Your task to perform on an android device: turn on the 24-hour format for clock Image 0: 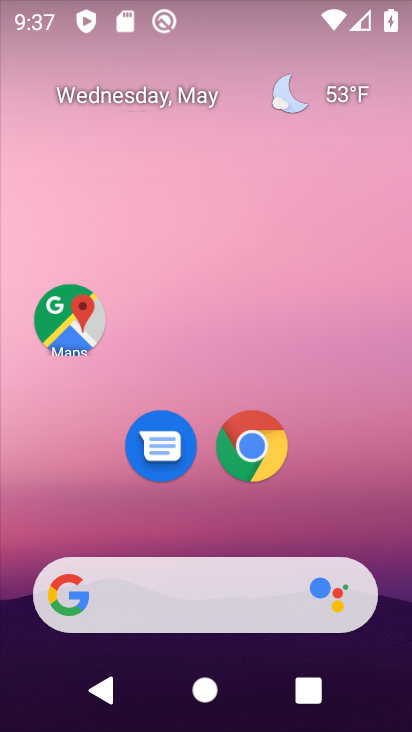
Step 0: drag from (328, 517) to (360, 87)
Your task to perform on an android device: turn on the 24-hour format for clock Image 1: 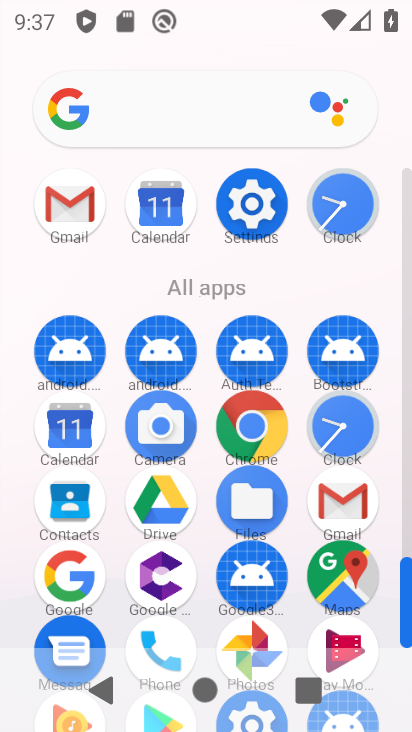
Step 1: click (342, 224)
Your task to perform on an android device: turn on the 24-hour format for clock Image 2: 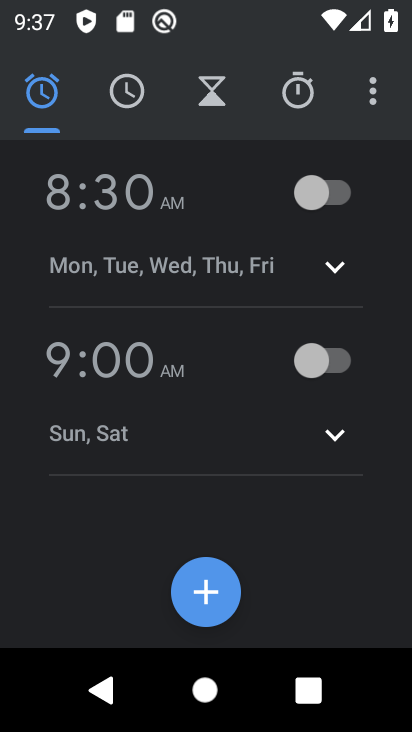
Step 2: click (379, 99)
Your task to perform on an android device: turn on the 24-hour format for clock Image 3: 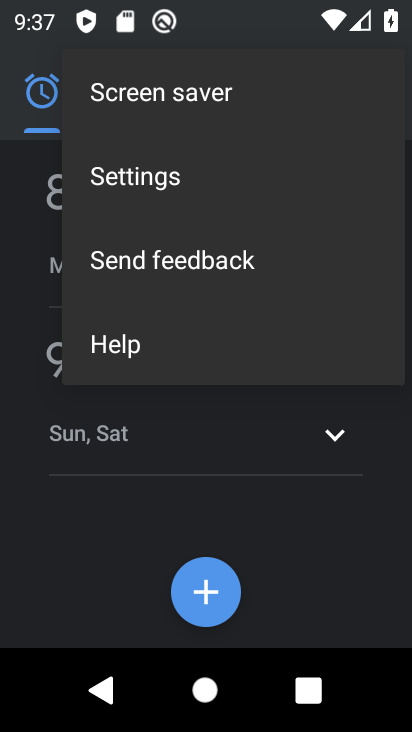
Step 3: click (164, 187)
Your task to perform on an android device: turn on the 24-hour format for clock Image 4: 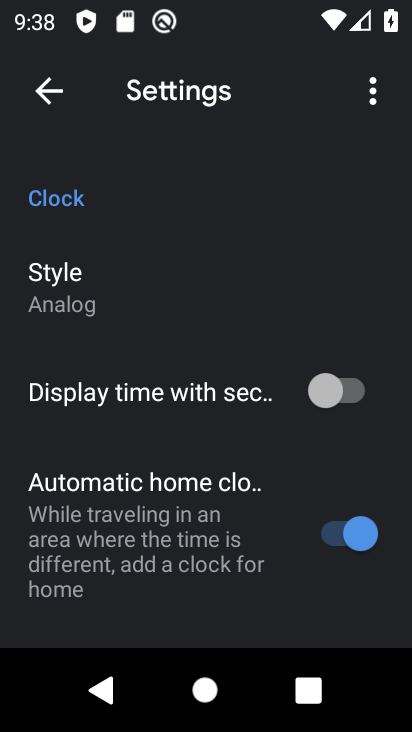
Step 4: drag from (222, 466) to (194, 234)
Your task to perform on an android device: turn on the 24-hour format for clock Image 5: 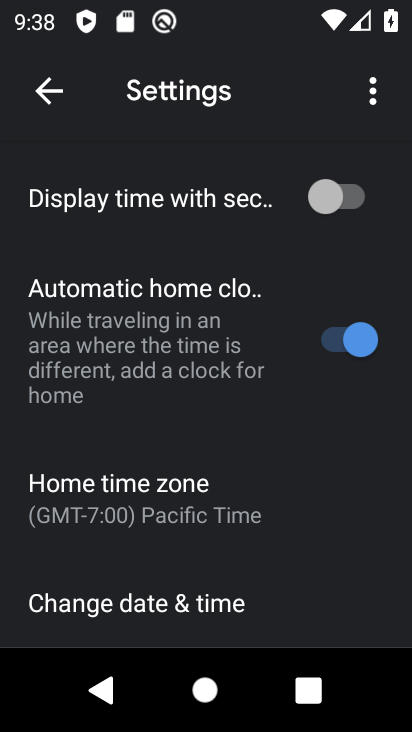
Step 5: click (255, 592)
Your task to perform on an android device: turn on the 24-hour format for clock Image 6: 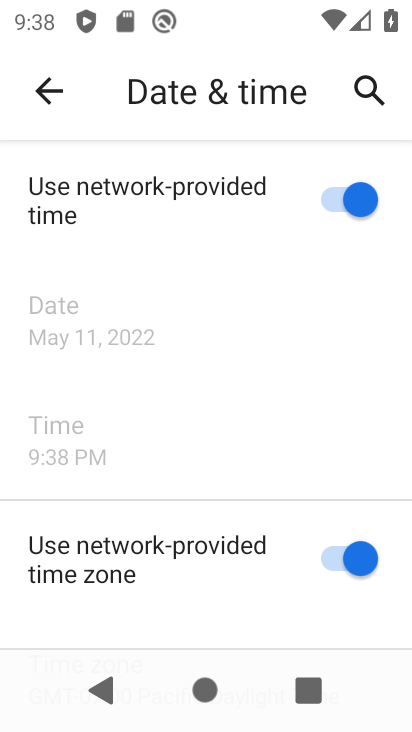
Step 6: drag from (262, 487) to (215, 247)
Your task to perform on an android device: turn on the 24-hour format for clock Image 7: 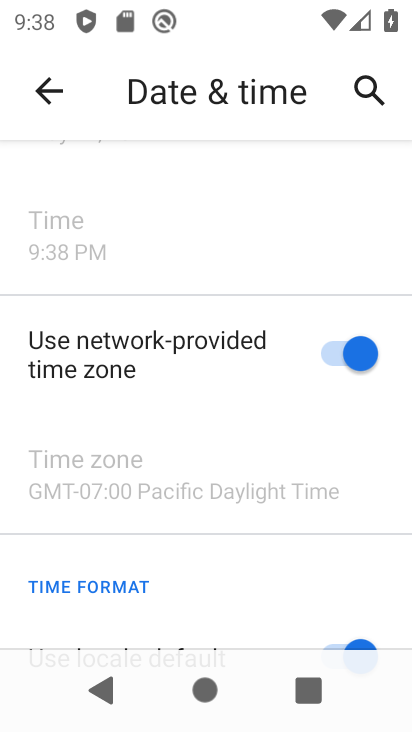
Step 7: drag from (283, 530) to (219, 304)
Your task to perform on an android device: turn on the 24-hour format for clock Image 8: 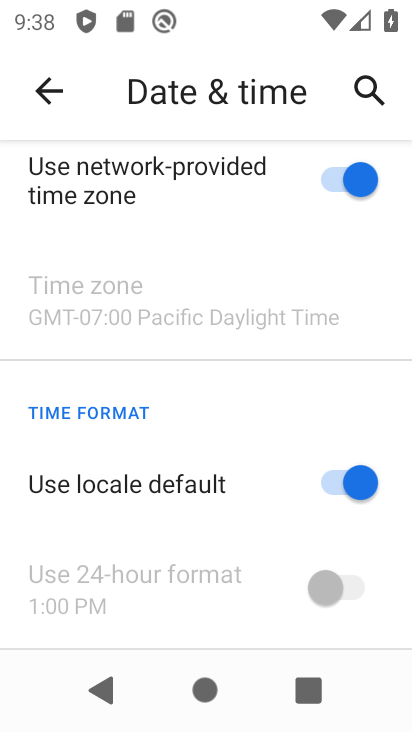
Step 8: click (359, 493)
Your task to perform on an android device: turn on the 24-hour format for clock Image 9: 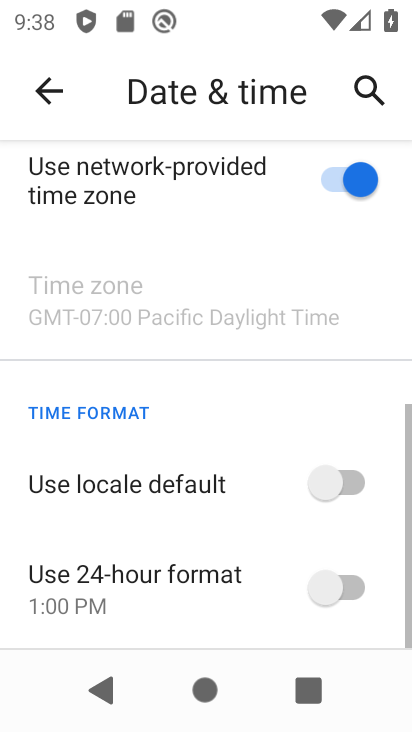
Step 9: click (345, 583)
Your task to perform on an android device: turn on the 24-hour format for clock Image 10: 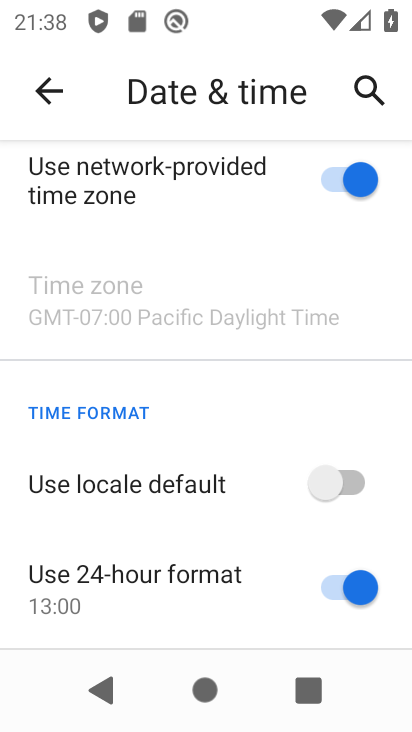
Step 10: task complete